Your task to perform on an android device: Is it going to rain tomorrow? Image 0: 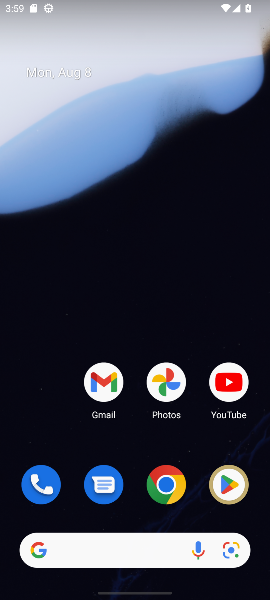
Step 0: press back button
Your task to perform on an android device: Is it going to rain tomorrow? Image 1: 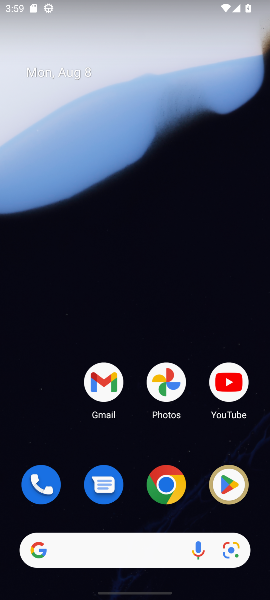
Step 1: click (117, 112)
Your task to perform on an android device: Is it going to rain tomorrow? Image 2: 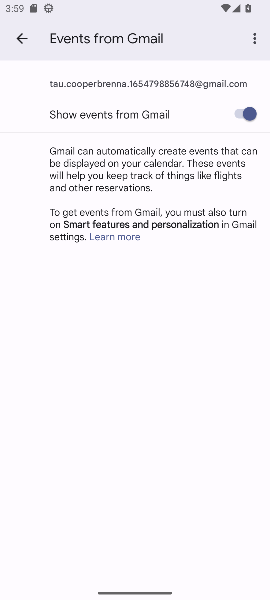
Step 2: press back button
Your task to perform on an android device: Is it going to rain tomorrow? Image 3: 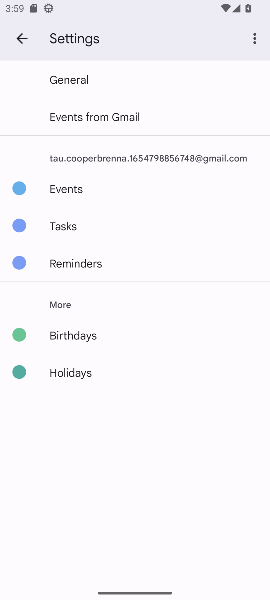
Step 3: click (15, 40)
Your task to perform on an android device: Is it going to rain tomorrow? Image 4: 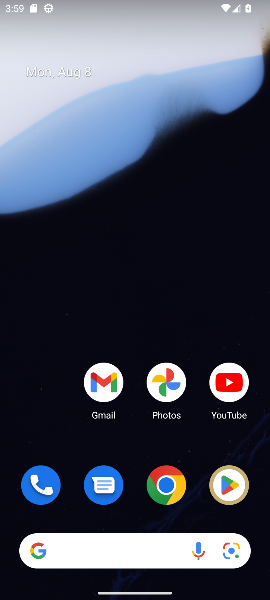
Step 4: drag from (152, 499) to (115, 19)
Your task to perform on an android device: Is it going to rain tomorrow? Image 5: 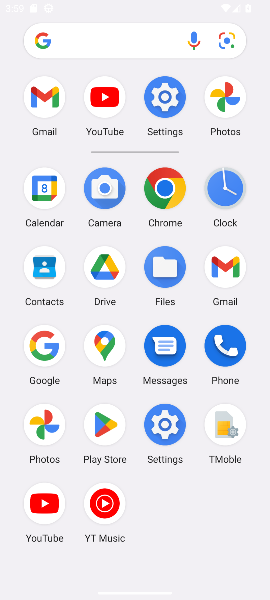
Step 5: drag from (149, 447) to (124, 118)
Your task to perform on an android device: Is it going to rain tomorrow? Image 6: 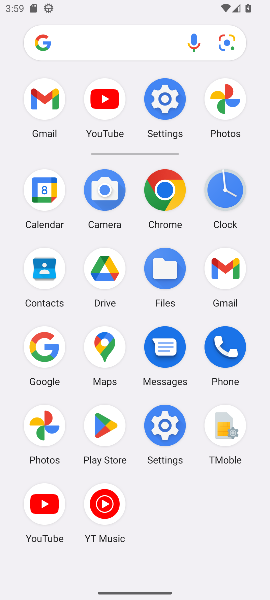
Step 6: click (167, 188)
Your task to perform on an android device: Is it going to rain tomorrow? Image 7: 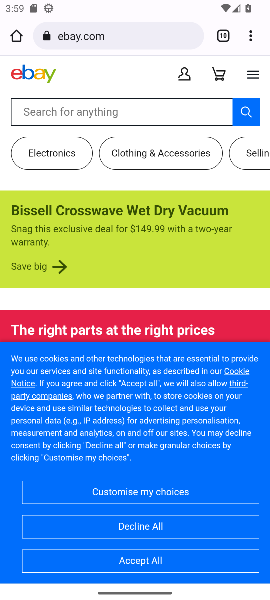
Step 7: click (246, 38)
Your task to perform on an android device: Is it going to rain tomorrow? Image 8: 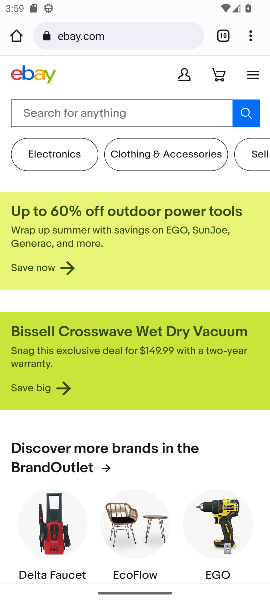
Step 8: drag from (248, 34) to (136, 66)
Your task to perform on an android device: Is it going to rain tomorrow? Image 9: 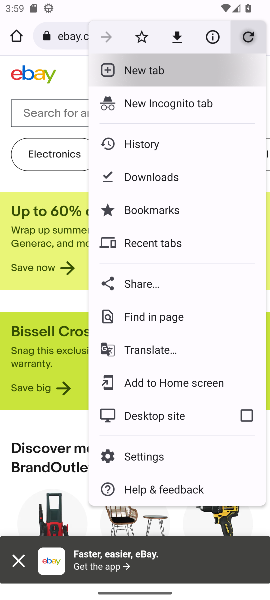
Step 9: drag from (246, 37) to (136, 66)
Your task to perform on an android device: Is it going to rain tomorrow? Image 10: 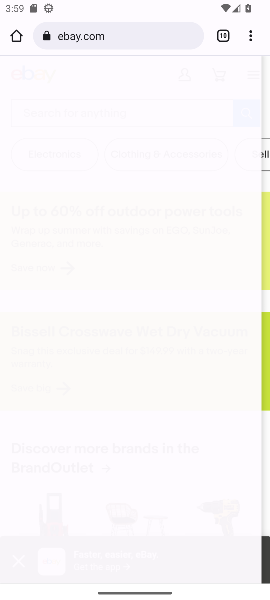
Step 10: drag from (246, 37) to (136, 66)
Your task to perform on an android device: Is it going to rain tomorrow? Image 11: 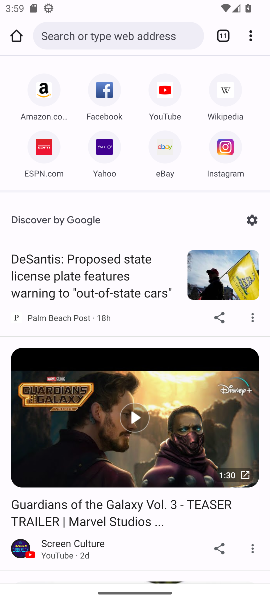
Step 11: click (246, 36)
Your task to perform on an android device: Is it going to rain tomorrow? Image 12: 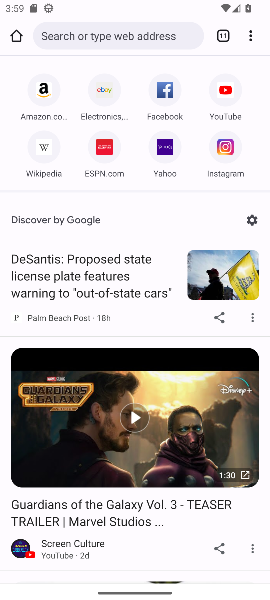
Step 12: drag from (253, 37) to (136, 71)
Your task to perform on an android device: Is it going to rain tomorrow? Image 13: 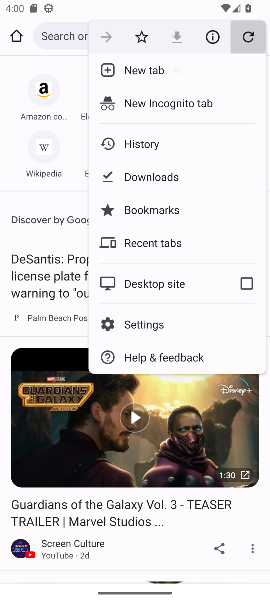
Step 13: drag from (253, 40) to (136, 71)
Your task to perform on an android device: Is it going to rain tomorrow? Image 14: 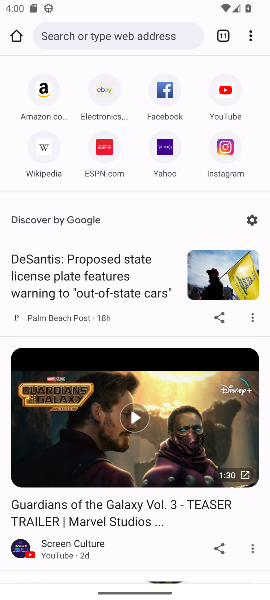
Step 14: click (136, 71)
Your task to perform on an android device: Is it going to rain tomorrow? Image 15: 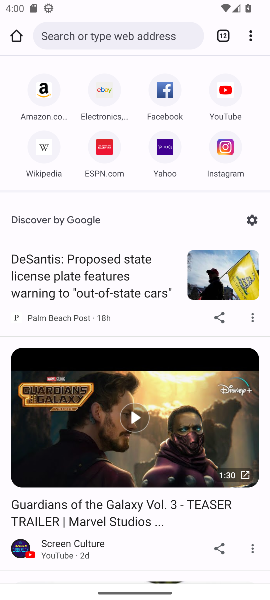
Step 15: click (68, 38)
Your task to perform on an android device: Is it going to rain tomorrow? Image 16: 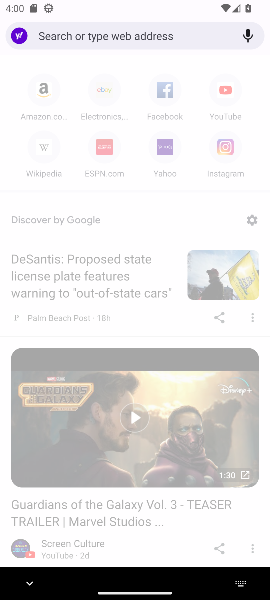
Step 16: type "is oit going to rain tomorrow"
Your task to perform on an android device: Is it going to rain tomorrow? Image 17: 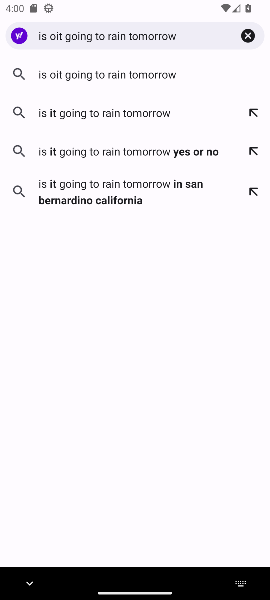
Step 17: click (144, 75)
Your task to perform on an android device: Is it going to rain tomorrow? Image 18: 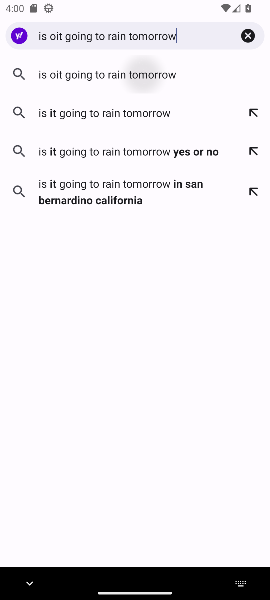
Step 18: click (144, 75)
Your task to perform on an android device: Is it going to rain tomorrow? Image 19: 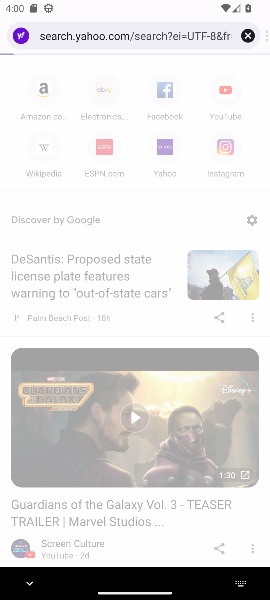
Step 19: click (144, 75)
Your task to perform on an android device: Is it going to rain tomorrow? Image 20: 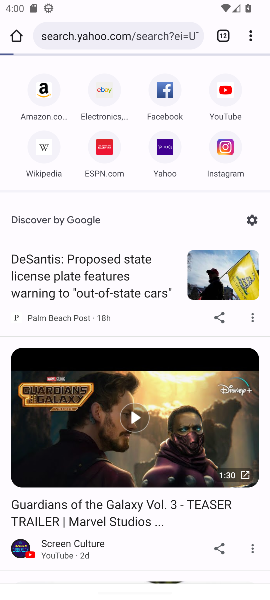
Step 20: click (160, 74)
Your task to perform on an android device: Is it going to rain tomorrow? Image 21: 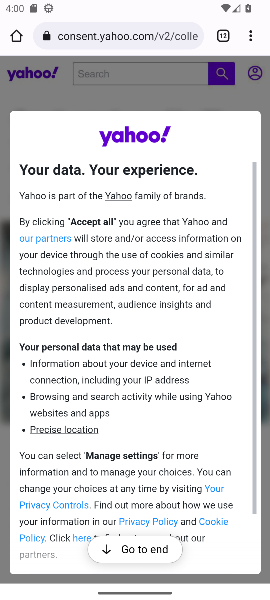
Step 21: task complete